Your task to perform on an android device: Do I have any events tomorrow? Image 0: 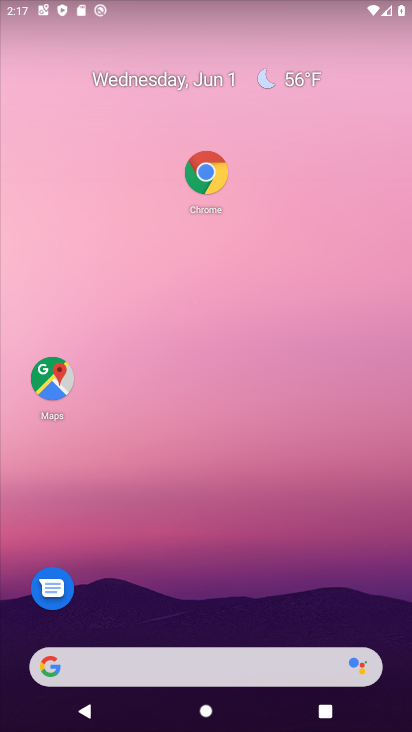
Step 0: drag from (240, 572) to (254, 180)
Your task to perform on an android device: Do I have any events tomorrow? Image 1: 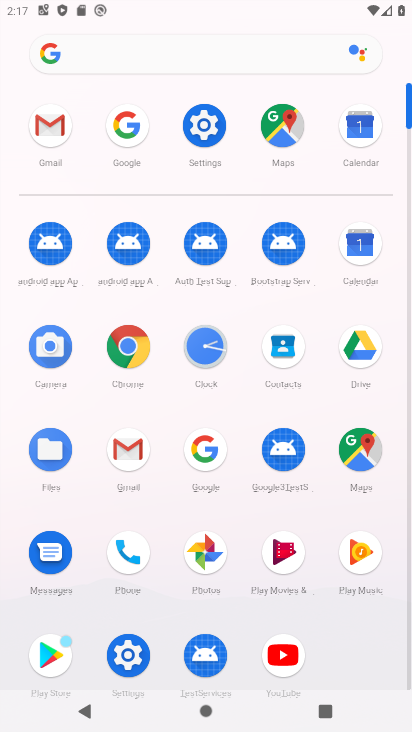
Step 1: click (358, 128)
Your task to perform on an android device: Do I have any events tomorrow? Image 2: 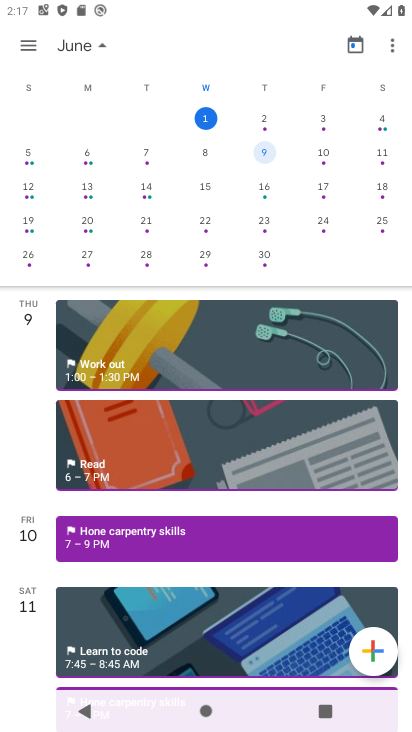
Step 2: click (262, 114)
Your task to perform on an android device: Do I have any events tomorrow? Image 3: 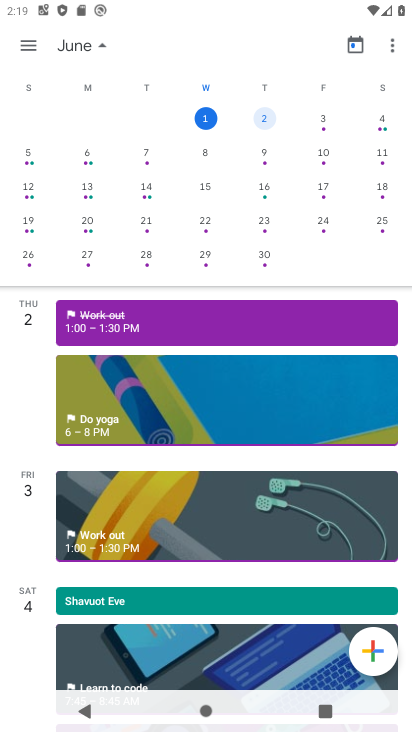
Step 3: task complete